Your task to perform on an android device: Open display settings Image 0: 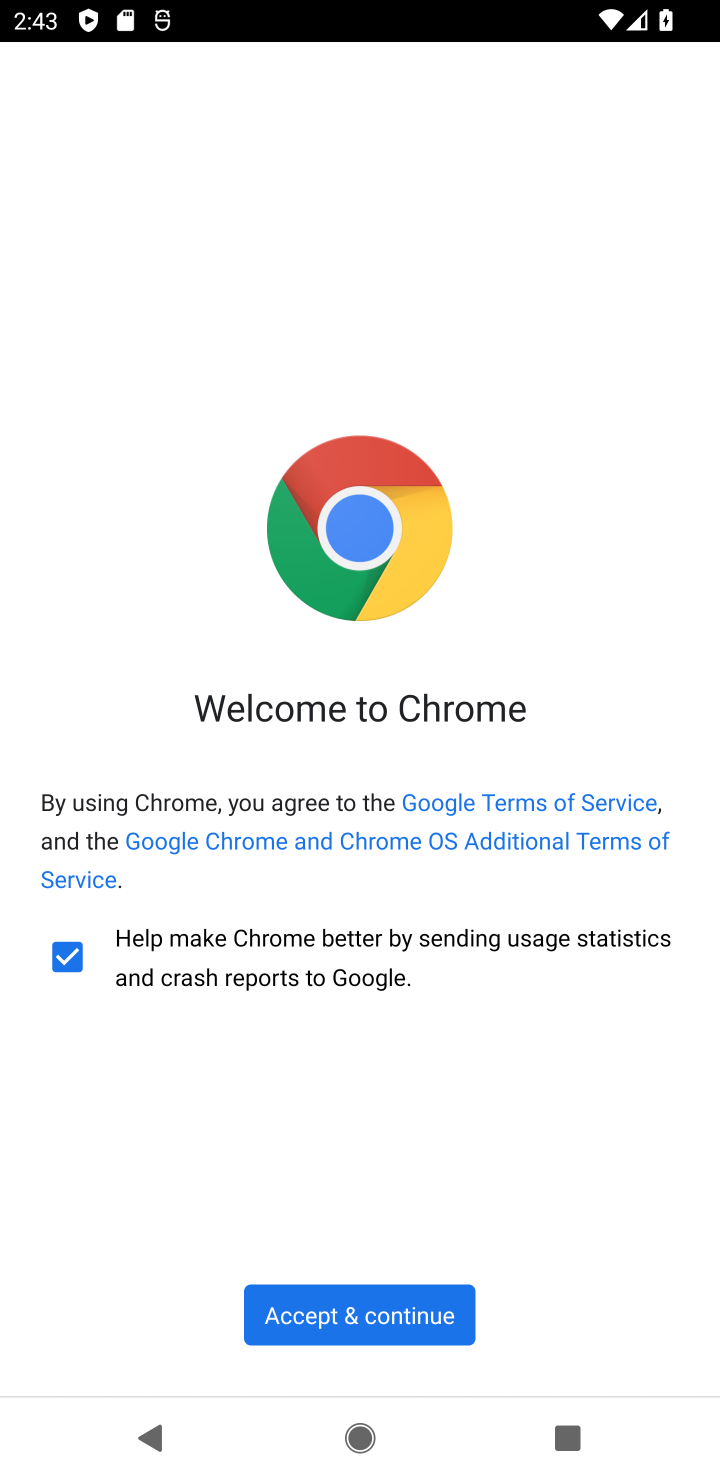
Step 0: press home button
Your task to perform on an android device: Open display settings Image 1: 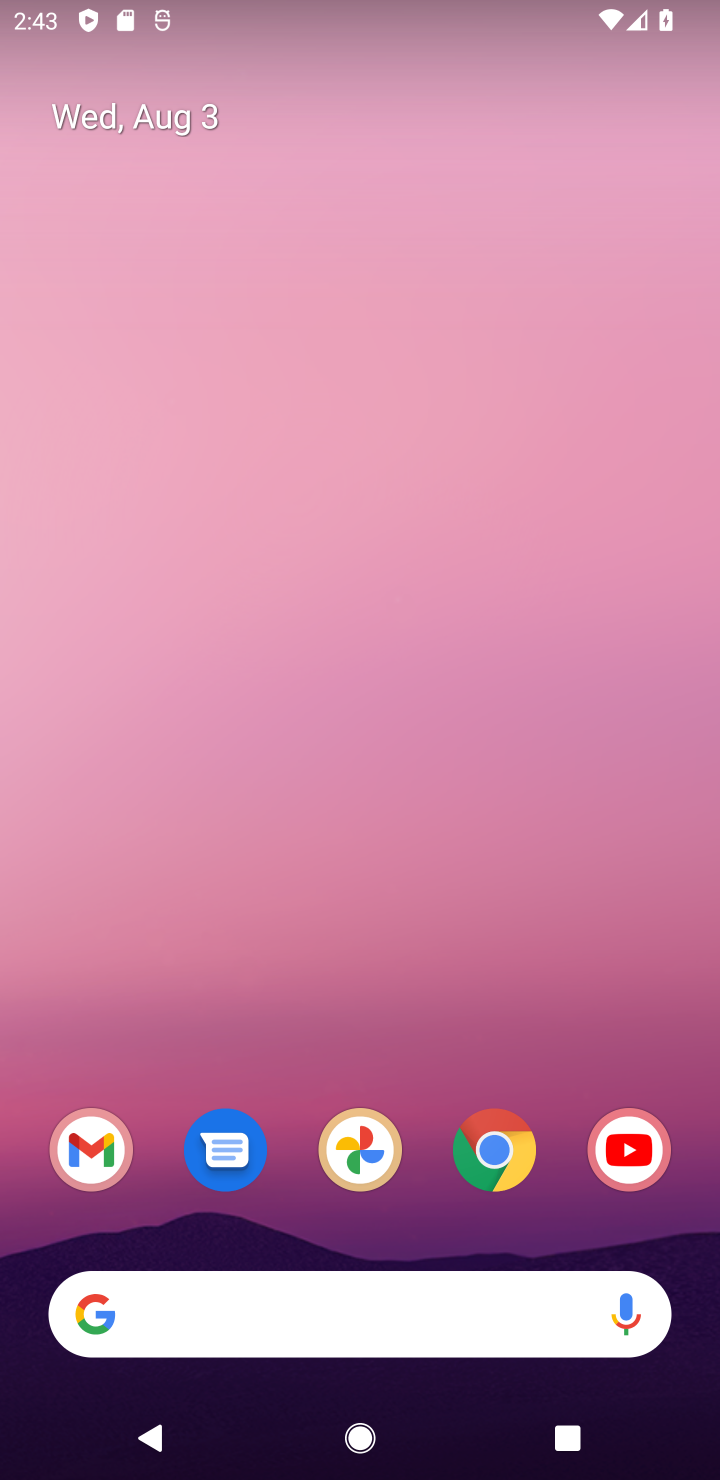
Step 1: drag from (276, 1300) to (277, 132)
Your task to perform on an android device: Open display settings Image 2: 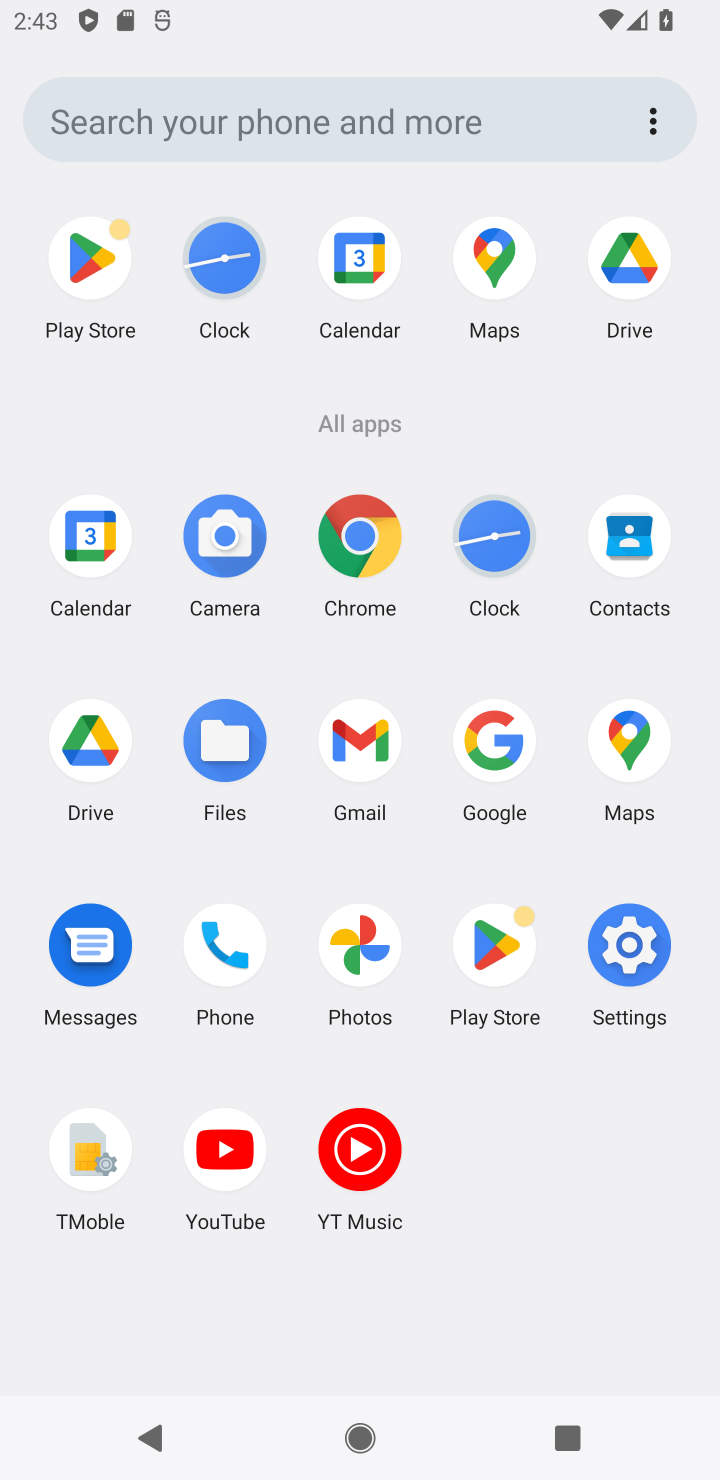
Step 2: click (612, 933)
Your task to perform on an android device: Open display settings Image 3: 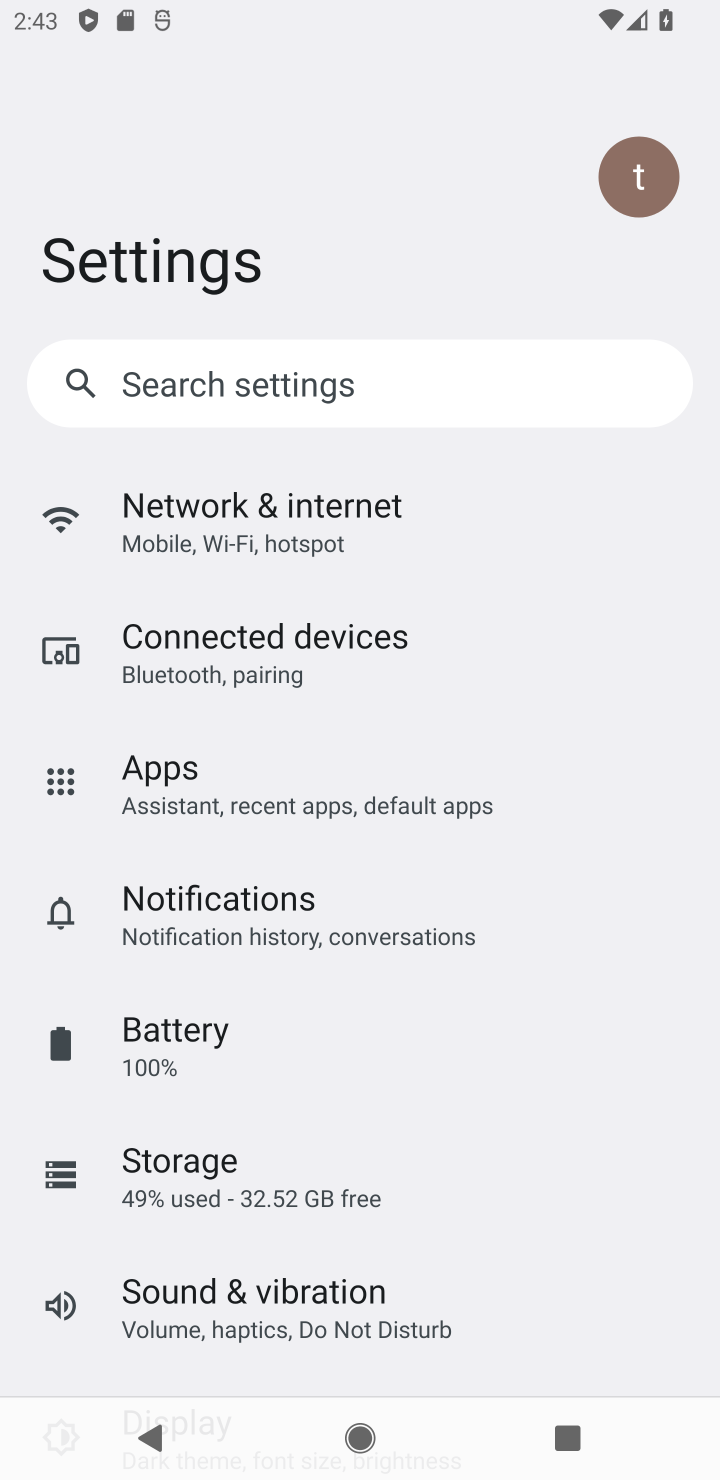
Step 3: drag from (263, 1204) to (274, 607)
Your task to perform on an android device: Open display settings Image 4: 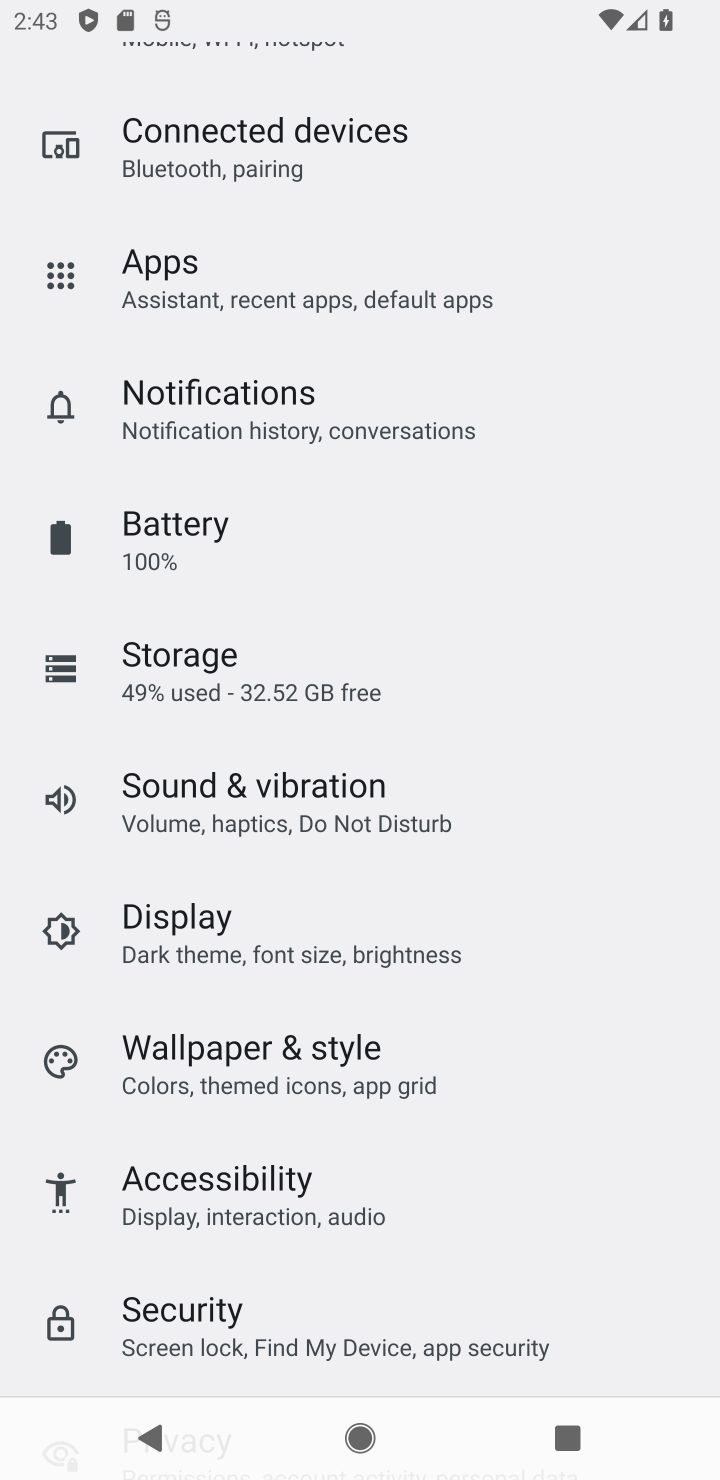
Step 4: click (217, 931)
Your task to perform on an android device: Open display settings Image 5: 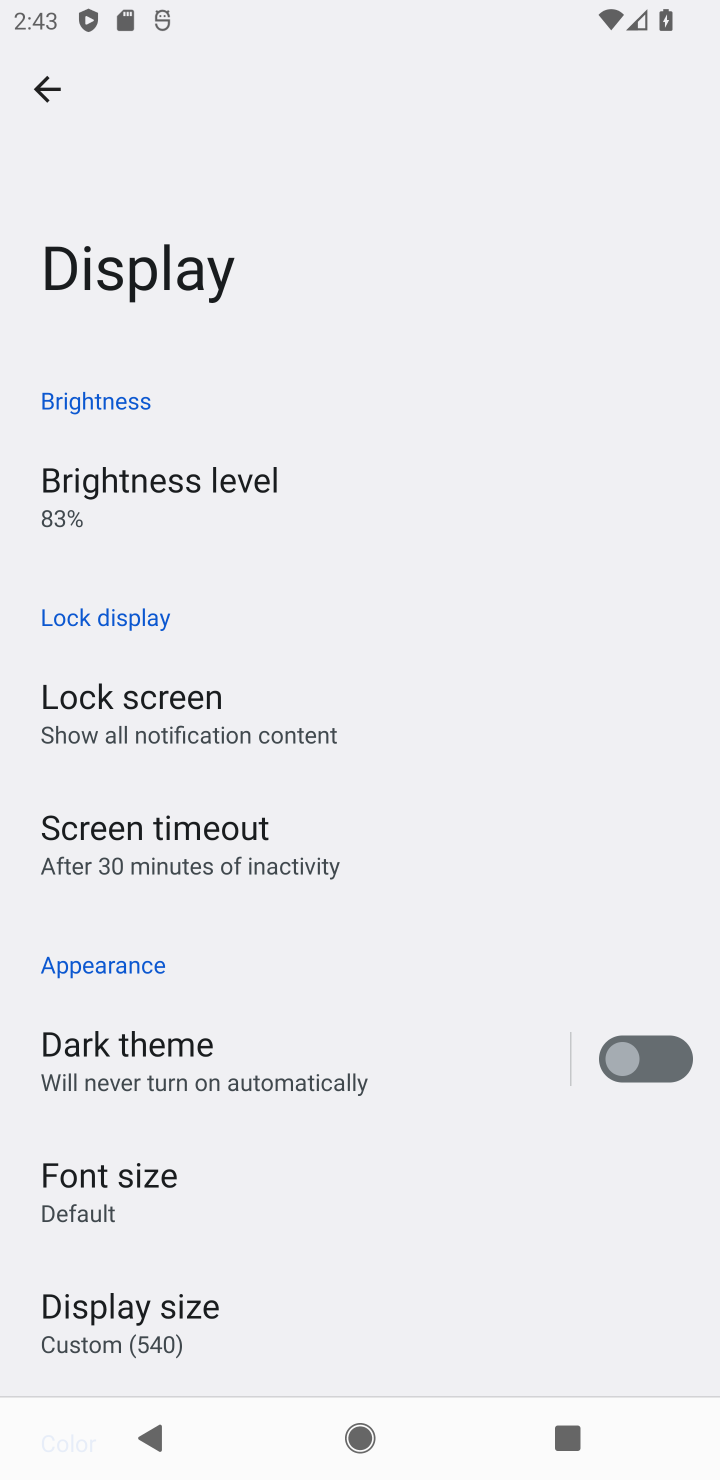
Step 5: task complete